Your task to perform on an android device: Find coffee shops on Maps Image 0: 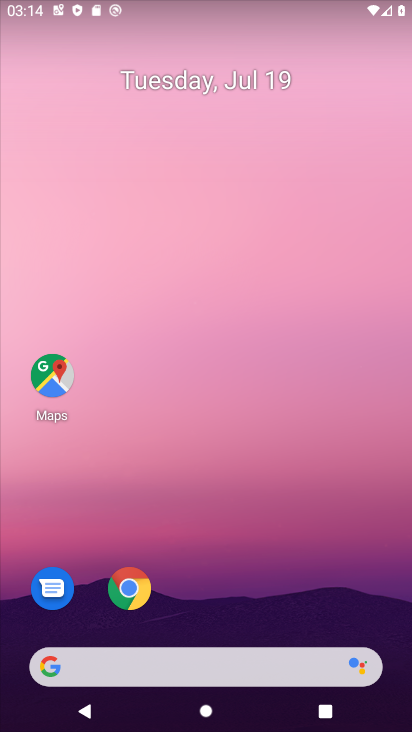
Step 0: click (43, 373)
Your task to perform on an android device: Find coffee shops on Maps Image 1: 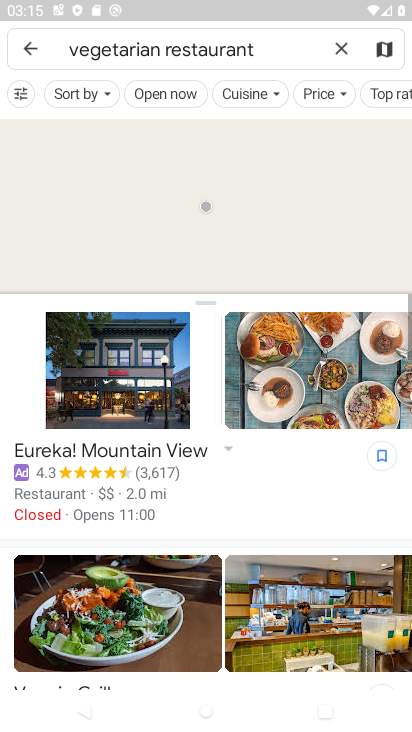
Step 1: click (350, 46)
Your task to perform on an android device: Find coffee shops on Maps Image 2: 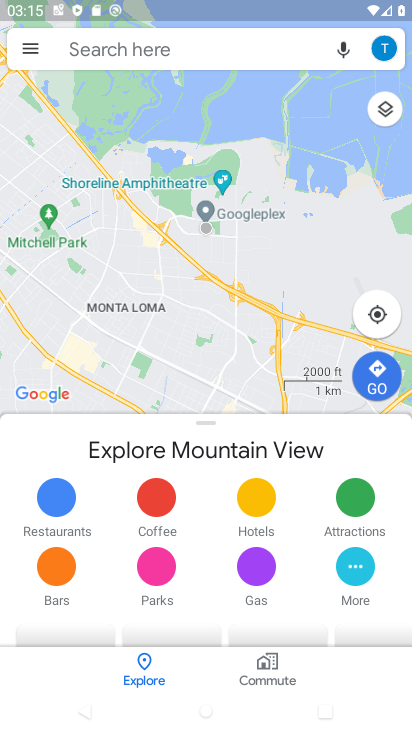
Step 2: click (240, 46)
Your task to perform on an android device: Find coffee shops on Maps Image 3: 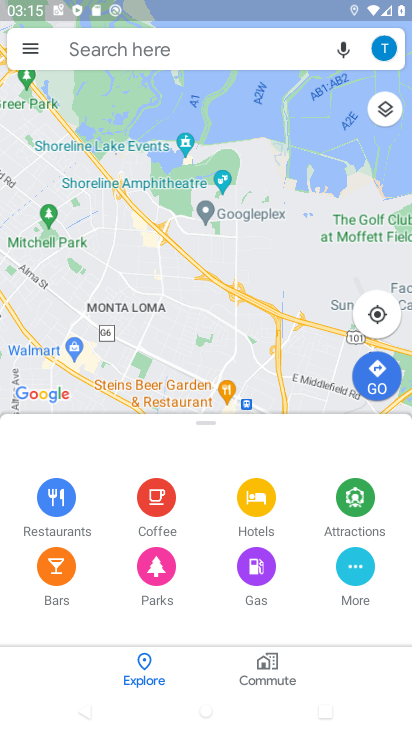
Step 3: click (114, 46)
Your task to perform on an android device: Find coffee shops on Maps Image 4: 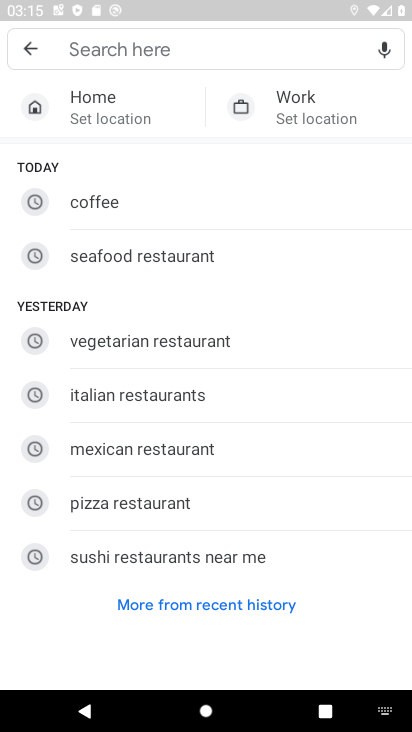
Step 4: click (91, 198)
Your task to perform on an android device: Find coffee shops on Maps Image 5: 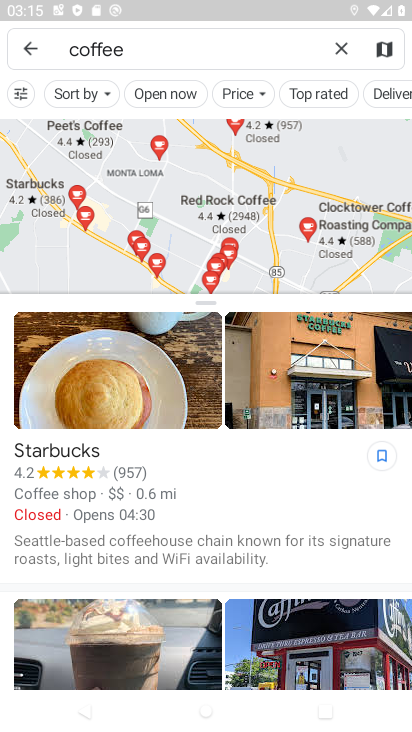
Step 5: task complete